Your task to perform on an android device: Search for vegetarian restaurants on Maps Image 0: 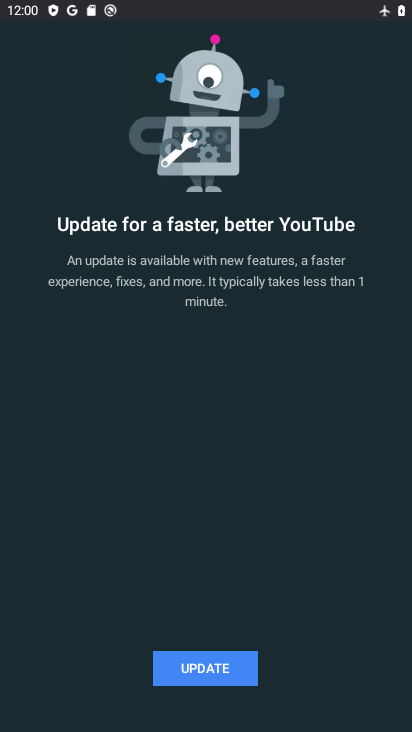
Step 0: press back button
Your task to perform on an android device: Search for vegetarian restaurants on Maps Image 1: 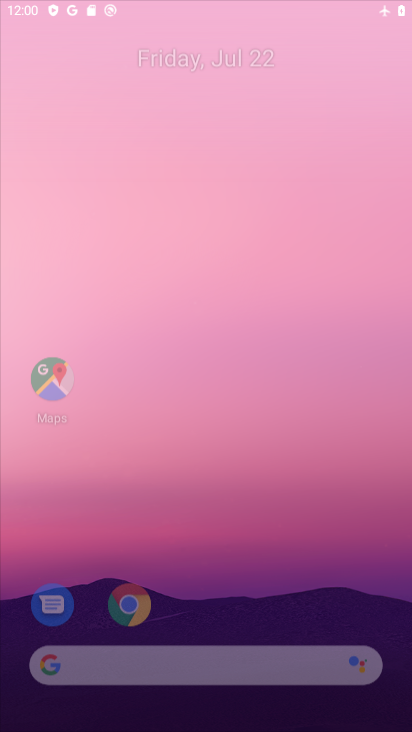
Step 1: press home button
Your task to perform on an android device: Search for vegetarian restaurants on Maps Image 2: 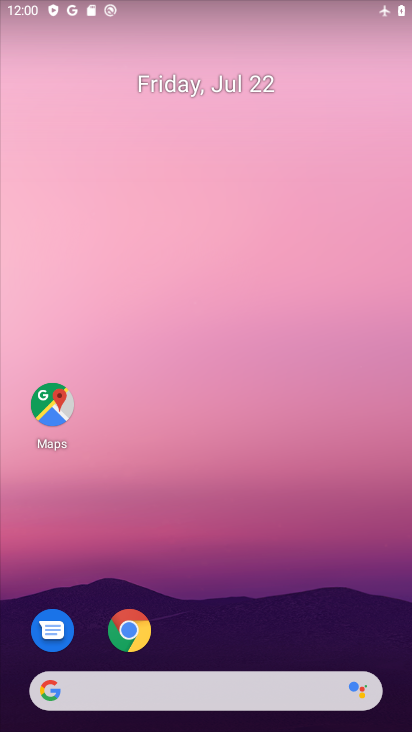
Step 2: drag from (193, 666) to (120, 87)
Your task to perform on an android device: Search for vegetarian restaurants on Maps Image 3: 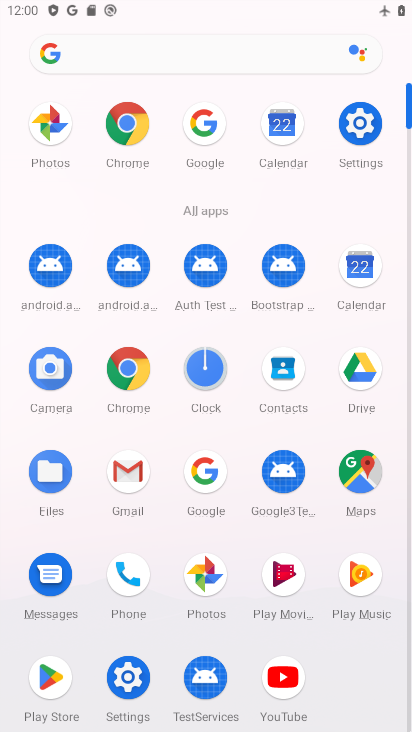
Step 3: click (353, 485)
Your task to perform on an android device: Search for vegetarian restaurants on Maps Image 4: 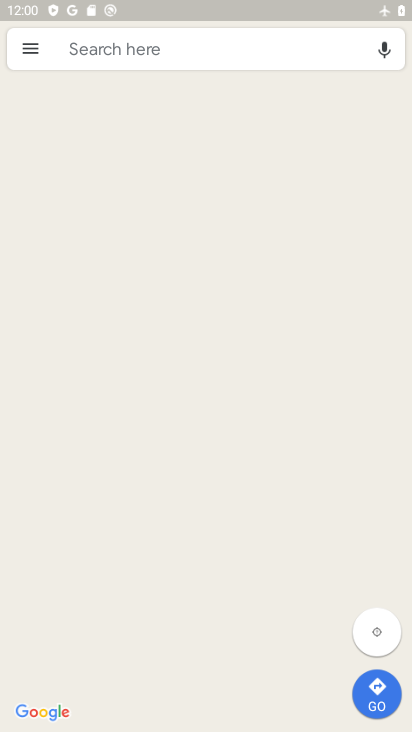
Step 4: click (325, 62)
Your task to perform on an android device: Search for vegetarian restaurants on Maps Image 5: 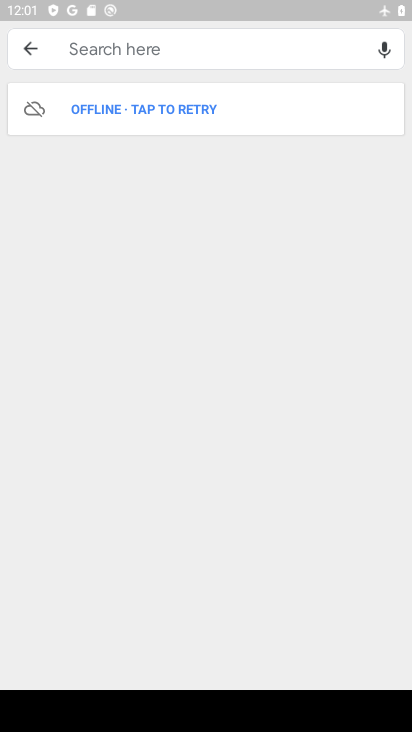
Step 5: click (191, 100)
Your task to perform on an android device: Search for vegetarian restaurants on Maps Image 6: 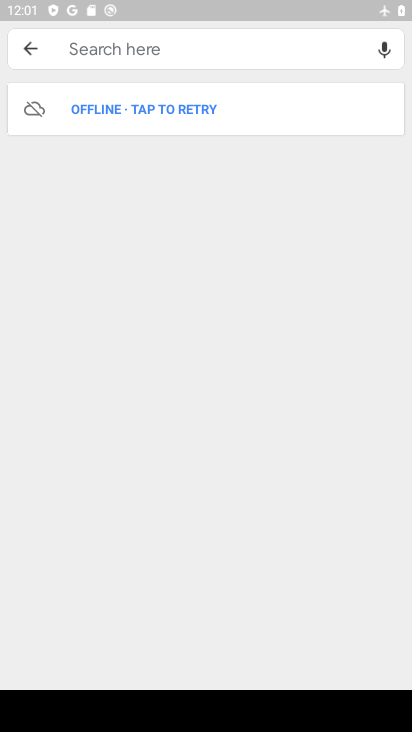
Step 6: task complete